Your task to perform on an android device: What is the news today? Image 0: 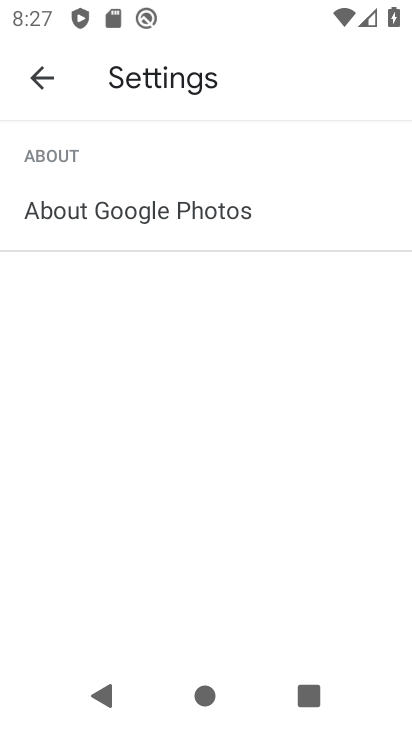
Step 0: press back button
Your task to perform on an android device: What is the news today? Image 1: 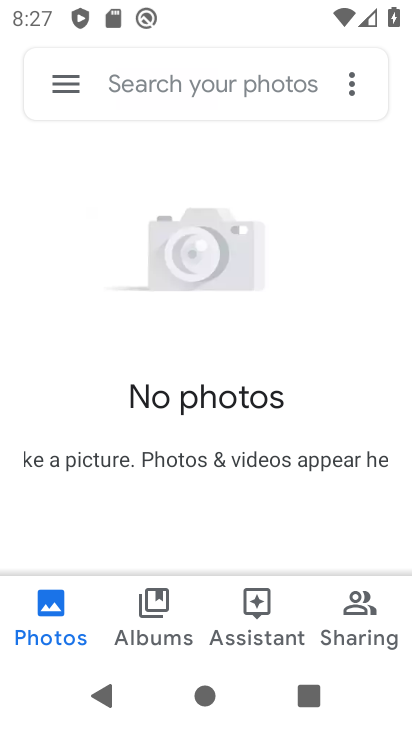
Step 1: press back button
Your task to perform on an android device: What is the news today? Image 2: 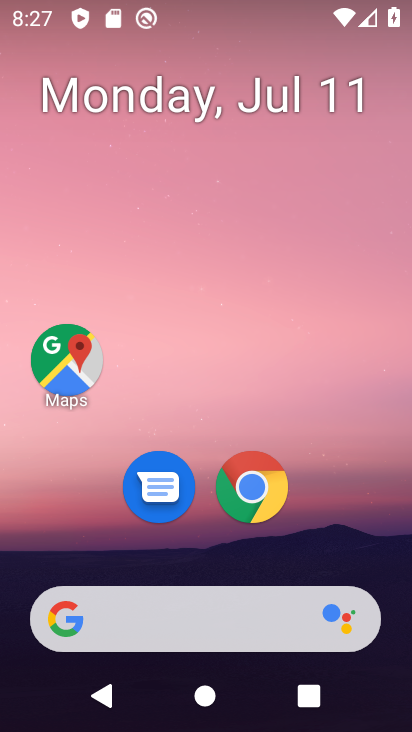
Step 2: click (189, 623)
Your task to perform on an android device: What is the news today? Image 3: 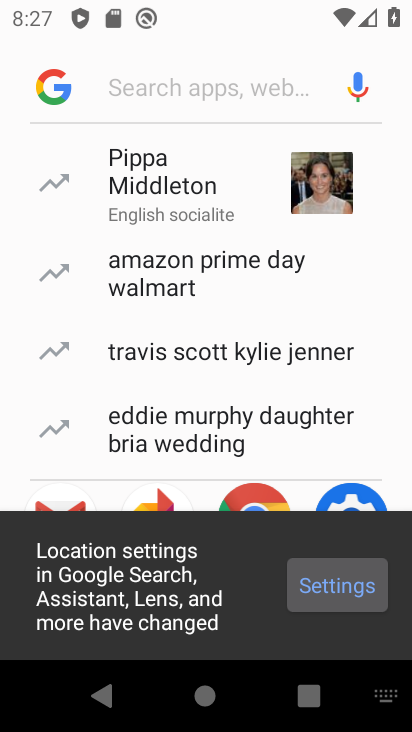
Step 3: click (160, 65)
Your task to perform on an android device: What is the news today? Image 4: 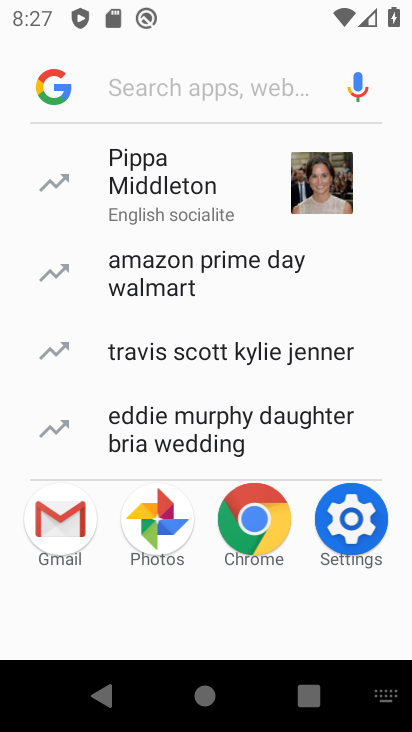
Step 4: type "news today"
Your task to perform on an android device: What is the news today? Image 5: 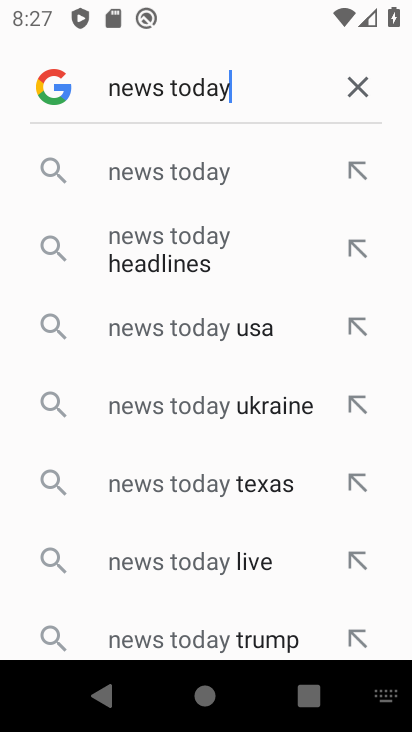
Step 5: click (176, 179)
Your task to perform on an android device: What is the news today? Image 6: 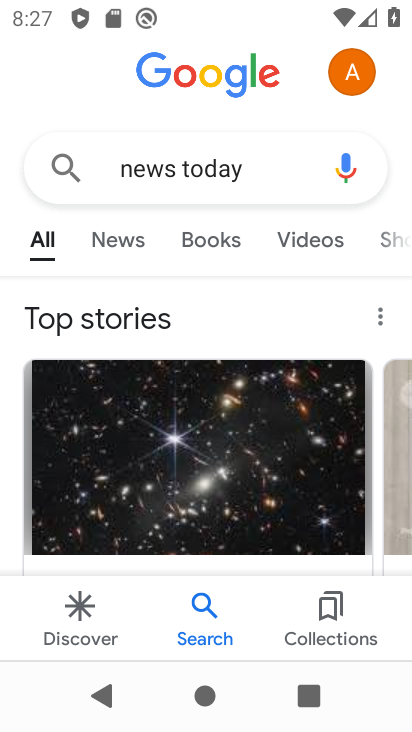
Step 6: task complete